Your task to perform on an android device: toggle location history Image 0: 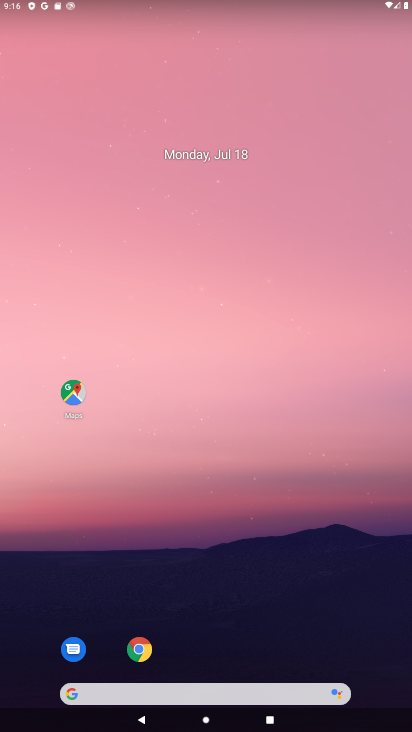
Step 0: drag from (239, 691) to (411, 121)
Your task to perform on an android device: toggle location history Image 1: 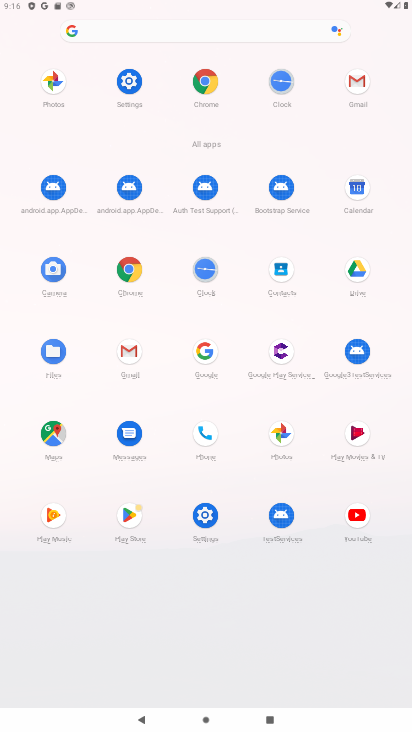
Step 1: click (363, 356)
Your task to perform on an android device: toggle location history Image 2: 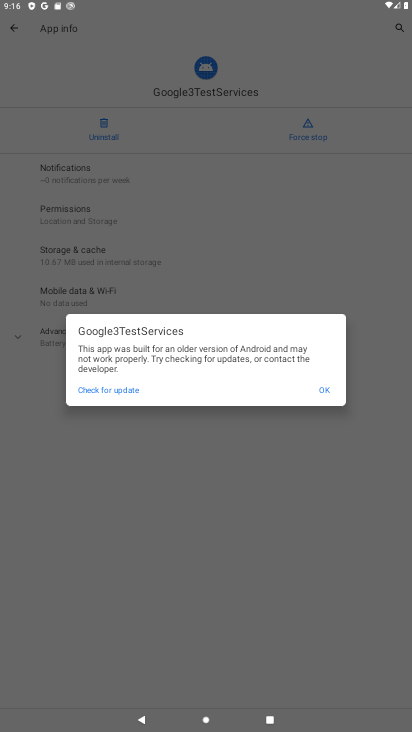
Step 2: click (319, 386)
Your task to perform on an android device: toggle location history Image 3: 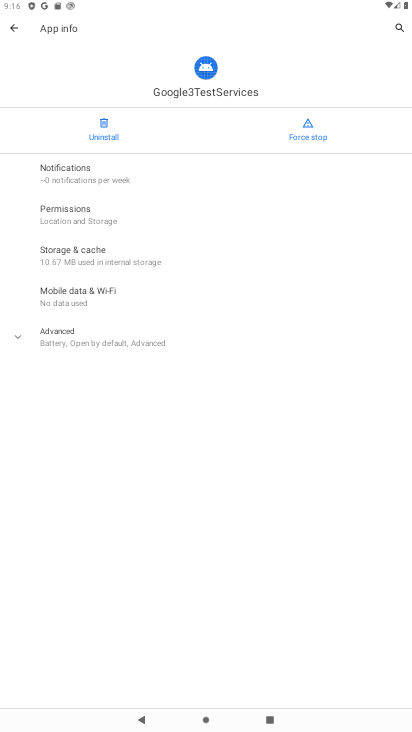
Step 3: press back button
Your task to perform on an android device: toggle location history Image 4: 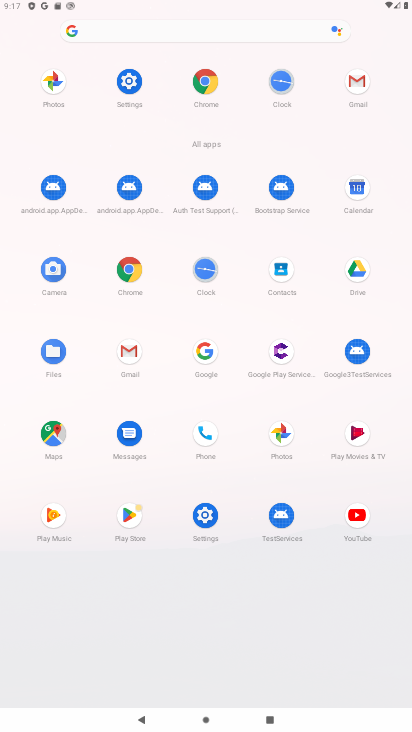
Step 4: click (209, 514)
Your task to perform on an android device: toggle location history Image 5: 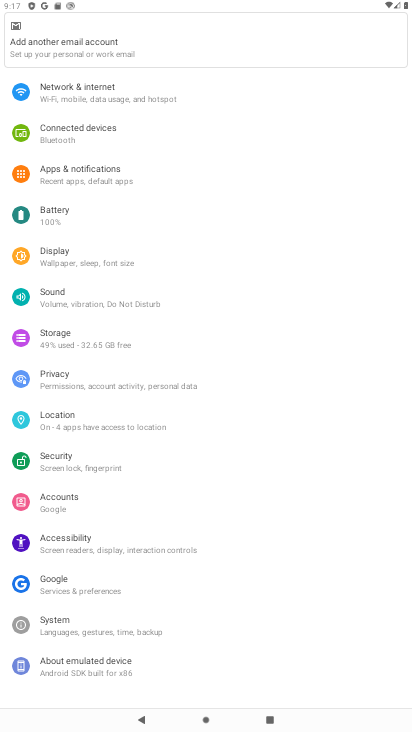
Step 5: click (112, 84)
Your task to perform on an android device: toggle location history Image 6: 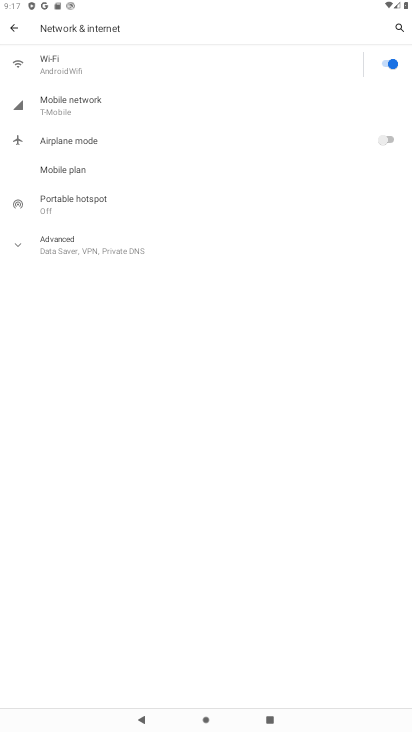
Step 6: press back button
Your task to perform on an android device: toggle location history Image 7: 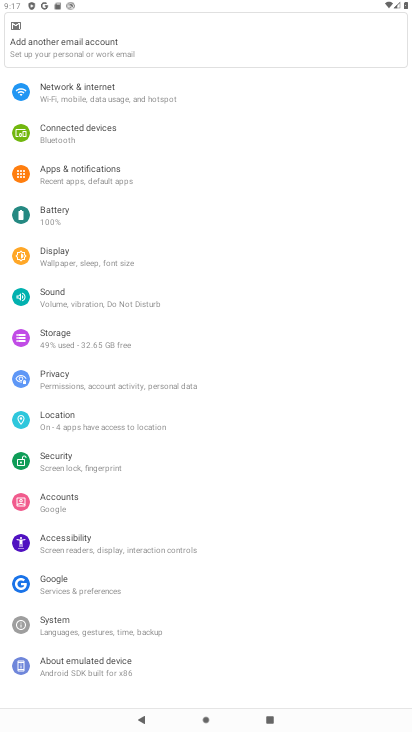
Step 7: click (60, 420)
Your task to perform on an android device: toggle location history Image 8: 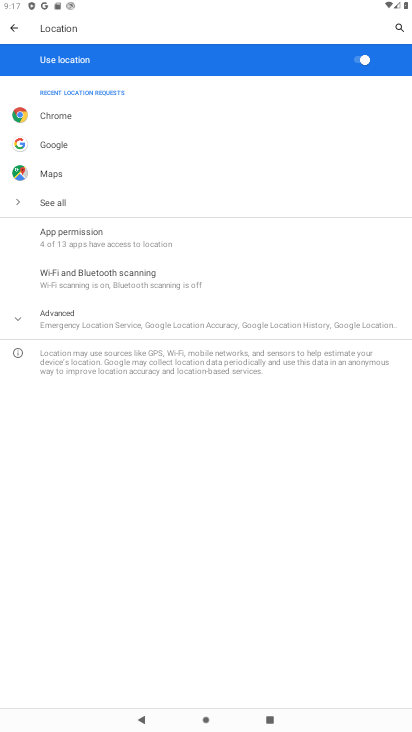
Step 8: click (125, 329)
Your task to perform on an android device: toggle location history Image 9: 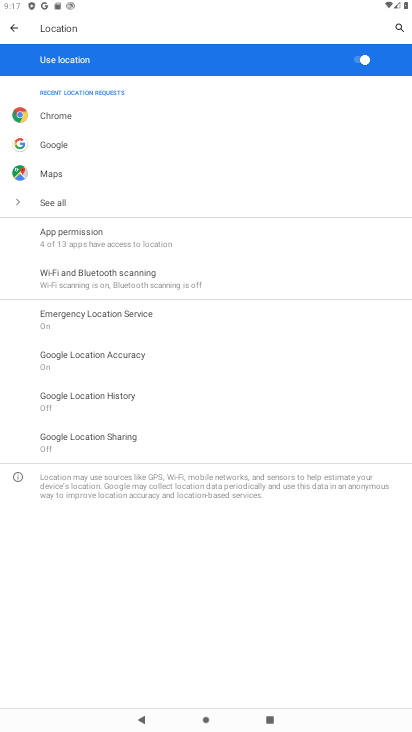
Step 9: click (121, 391)
Your task to perform on an android device: toggle location history Image 10: 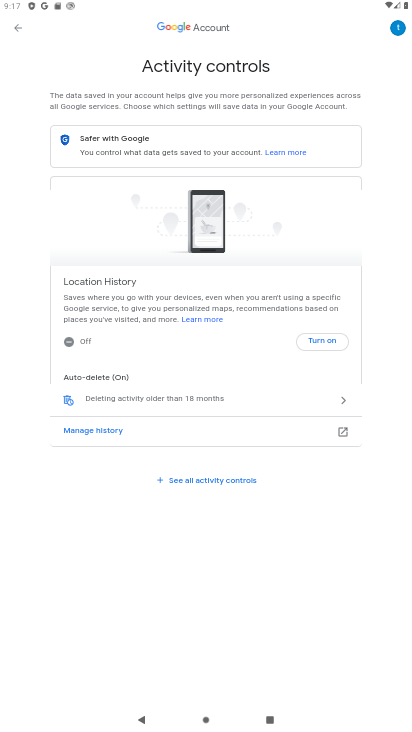
Step 10: click (323, 336)
Your task to perform on an android device: toggle location history Image 11: 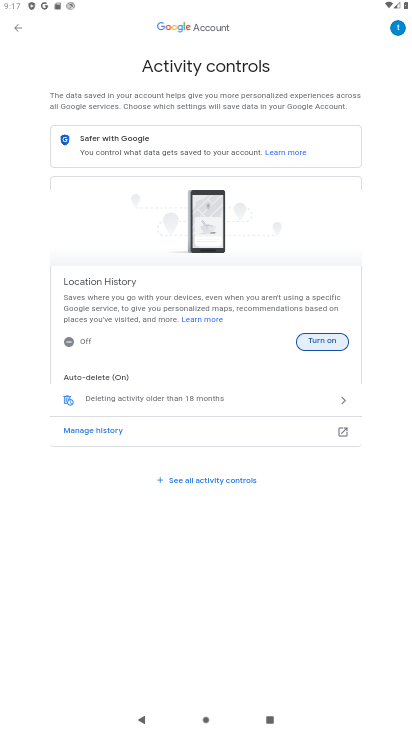
Step 11: task complete